Your task to perform on an android device: turn on translation in the chrome app Image 0: 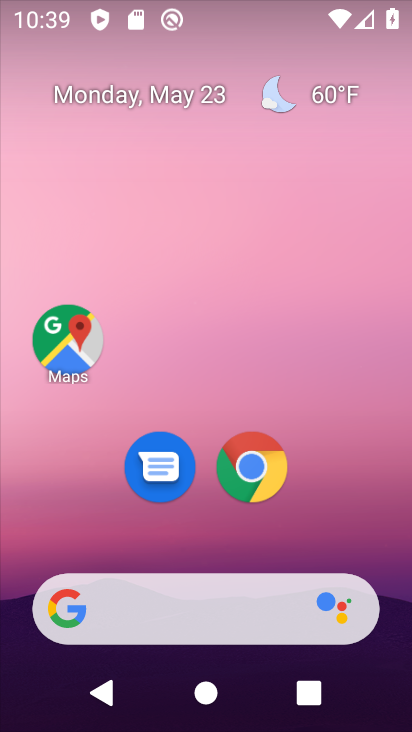
Step 0: drag from (222, 624) to (229, 26)
Your task to perform on an android device: turn on translation in the chrome app Image 1: 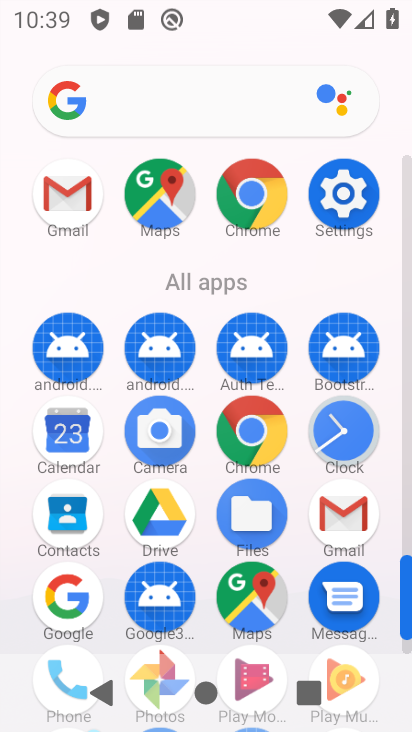
Step 1: click (275, 443)
Your task to perform on an android device: turn on translation in the chrome app Image 2: 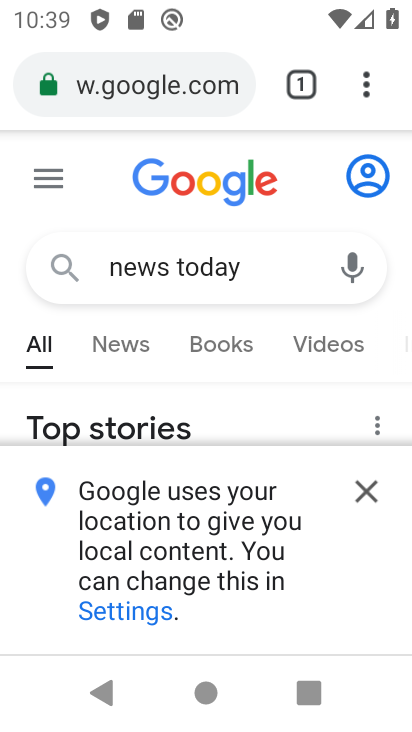
Step 2: click (366, 82)
Your task to perform on an android device: turn on translation in the chrome app Image 3: 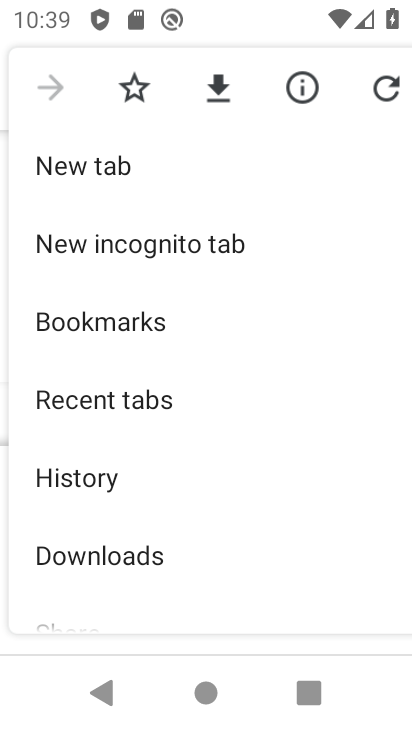
Step 3: drag from (255, 582) to (251, 72)
Your task to perform on an android device: turn on translation in the chrome app Image 4: 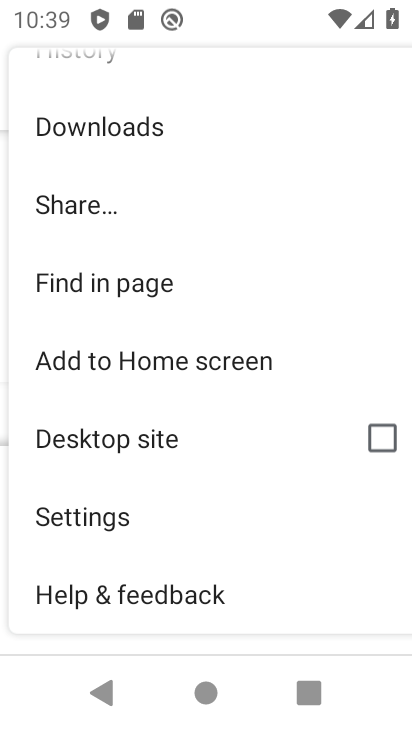
Step 4: click (172, 525)
Your task to perform on an android device: turn on translation in the chrome app Image 5: 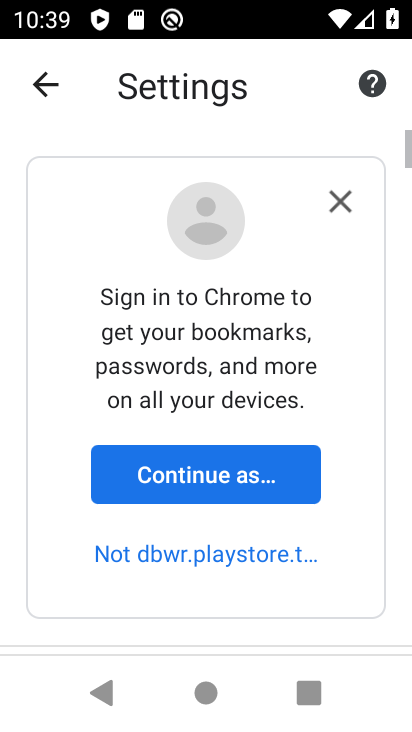
Step 5: drag from (336, 607) to (268, 138)
Your task to perform on an android device: turn on translation in the chrome app Image 6: 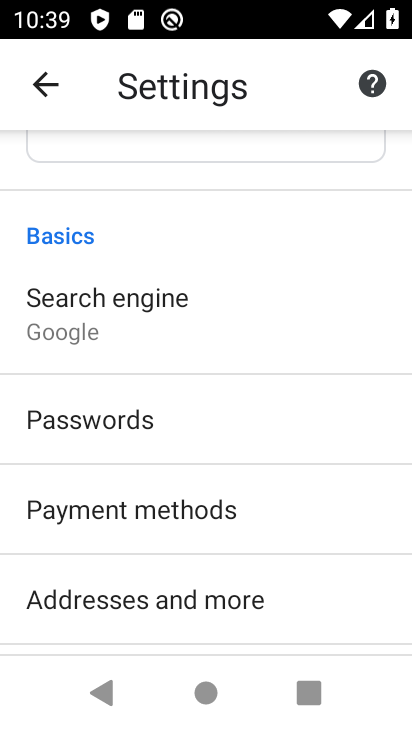
Step 6: drag from (321, 597) to (284, 208)
Your task to perform on an android device: turn on translation in the chrome app Image 7: 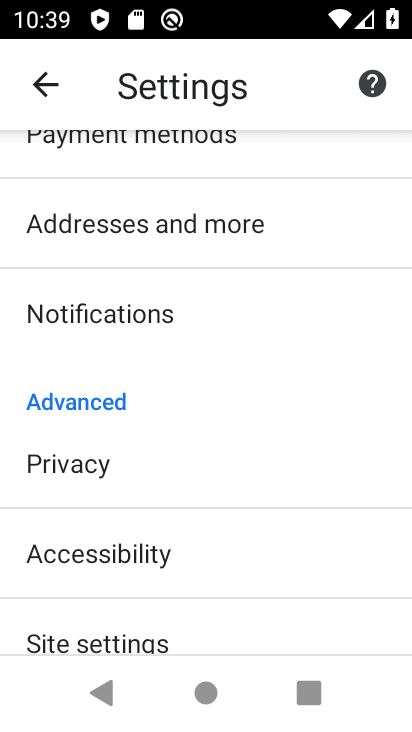
Step 7: drag from (215, 642) to (223, 320)
Your task to perform on an android device: turn on translation in the chrome app Image 8: 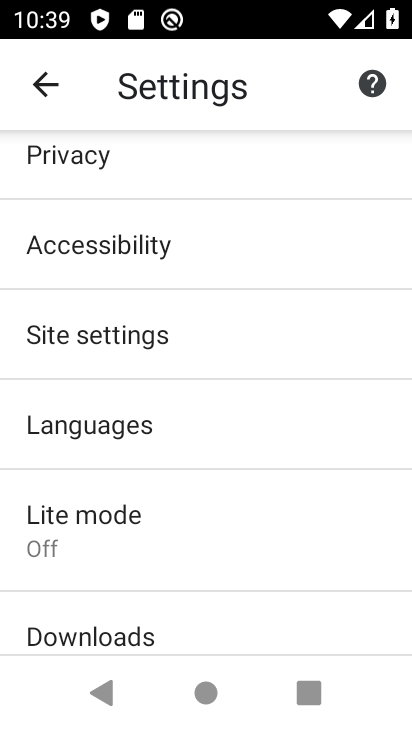
Step 8: drag from (171, 536) to (180, 473)
Your task to perform on an android device: turn on translation in the chrome app Image 9: 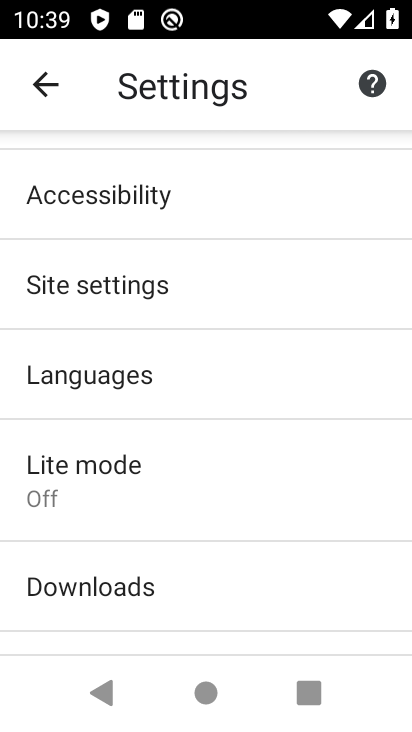
Step 9: click (134, 375)
Your task to perform on an android device: turn on translation in the chrome app Image 10: 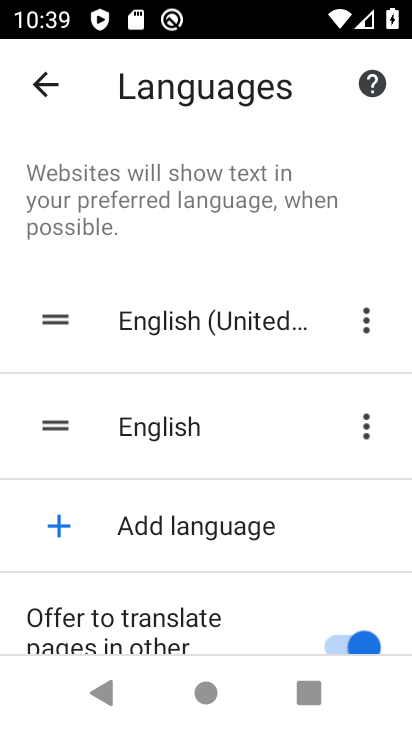
Step 10: task complete